Your task to perform on an android device: open the mobile data screen to see how much data has been used Image 0: 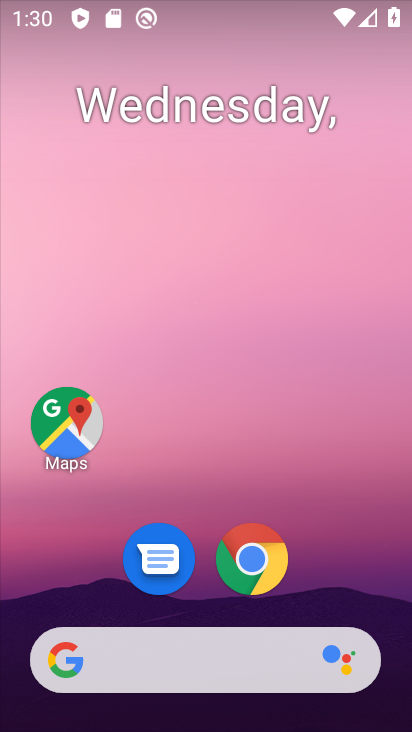
Step 0: drag from (361, 585) to (277, 2)
Your task to perform on an android device: open the mobile data screen to see how much data has been used Image 1: 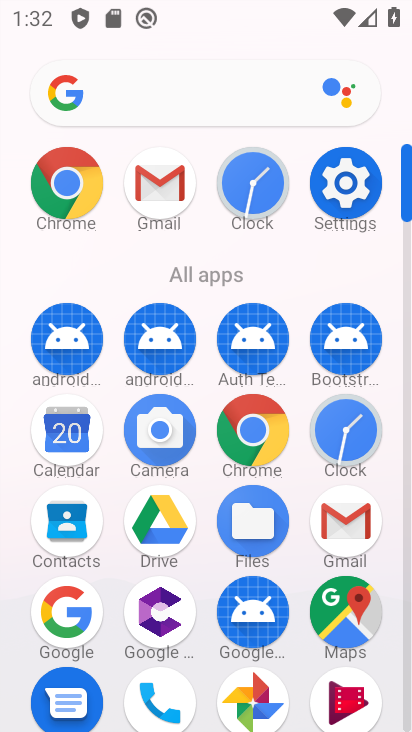
Step 1: drag from (306, 0) to (370, 718)
Your task to perform on an android device: open the mobile data screen to see how much data has been used Image 2: 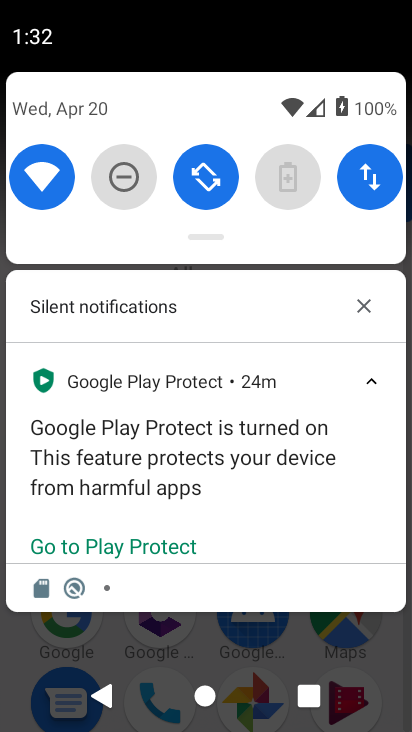
Step 2: click (371, 176)
Your task to perform on an android device: open the mobile data screen to see how much data has been used Image 3: 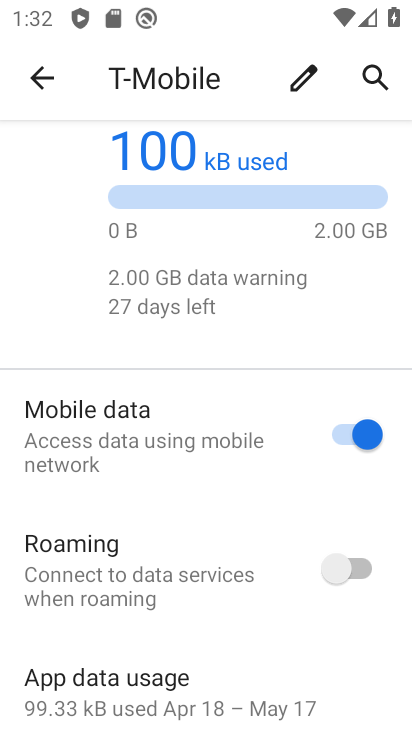
Step 3: task complete